Your task to perform on an android device: star an email in the gmail app Image 0: 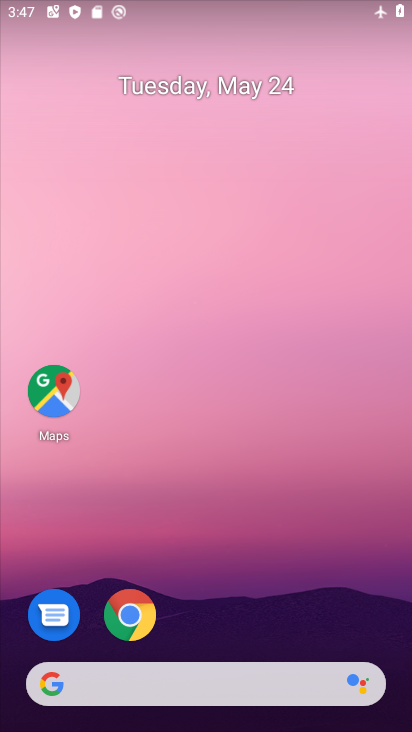
Step 0: drag from (203, 720) to (205, 115)
Your task to perform on an android device: star an email in the gmail app Image 1: 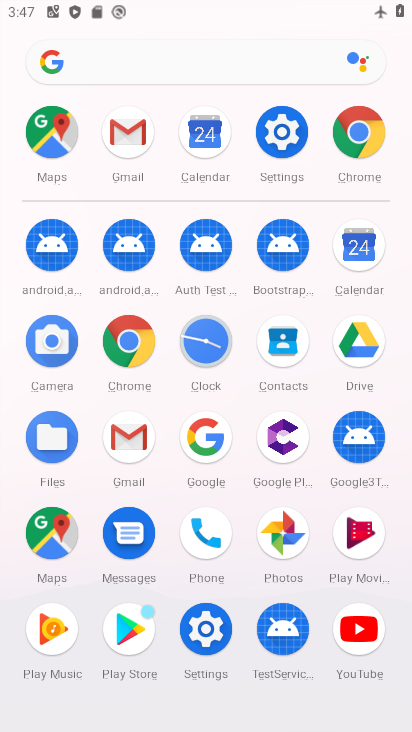
Step 1: click (132, 439)
Your task to perform on an android device: star an email in the gmail app Image 2: 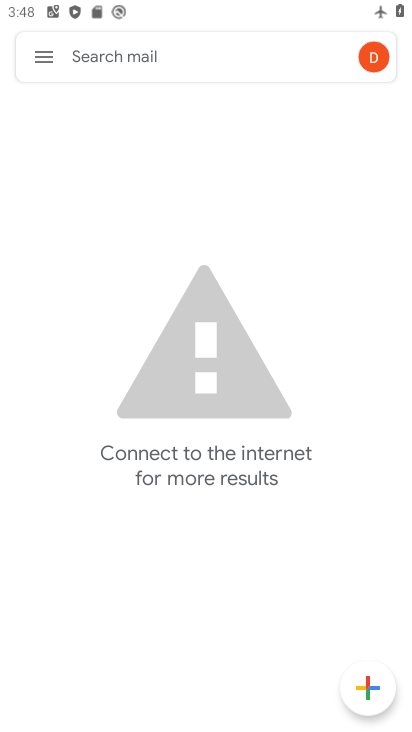
Step 2: click (46, 56)
Your task to perform on an android device: star an email in the gmail app Image 3: 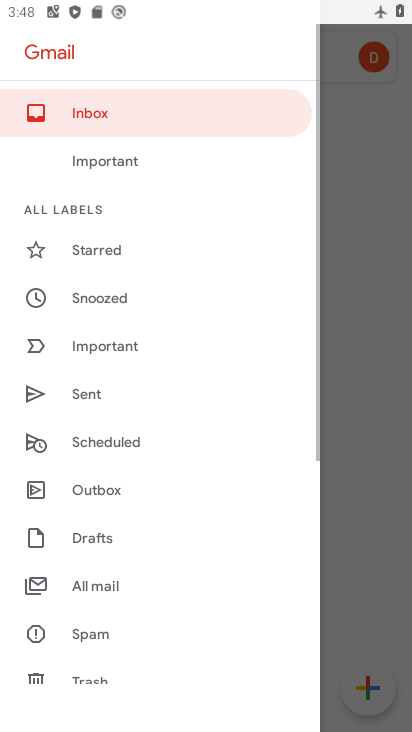
Step 3: click (99, 108)
Your task to perform on an android device: star an email in the gmail app Image 4: 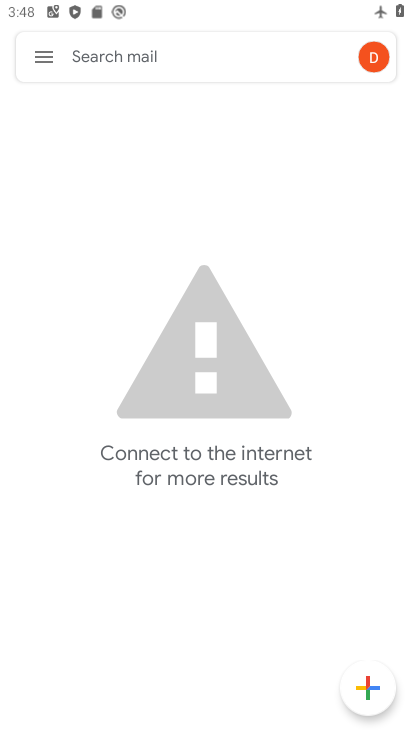
Step 4: task complete